Your task to perform on an android device: Go to Android settings Image 0: 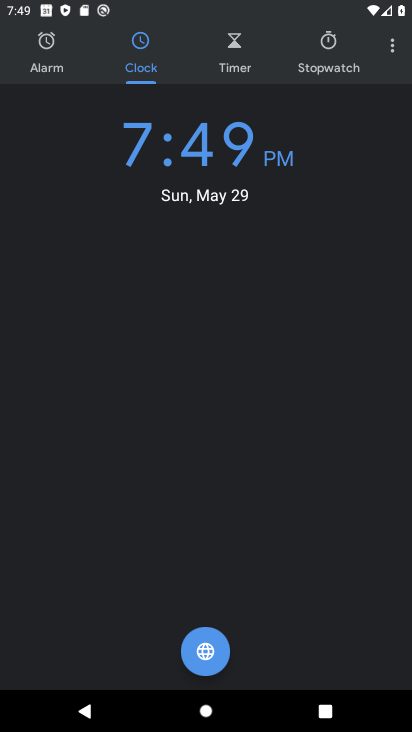
Step 0: press home button
Your task to perform on an android device: Go to Android settings Image 1: 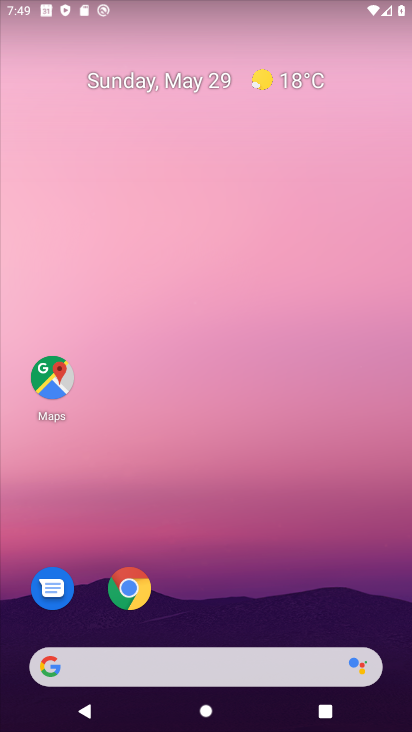
Step 1: drag from (252, 457) to (282, 67)
Your task to perform on an android device: Go to Android settings Image 2: 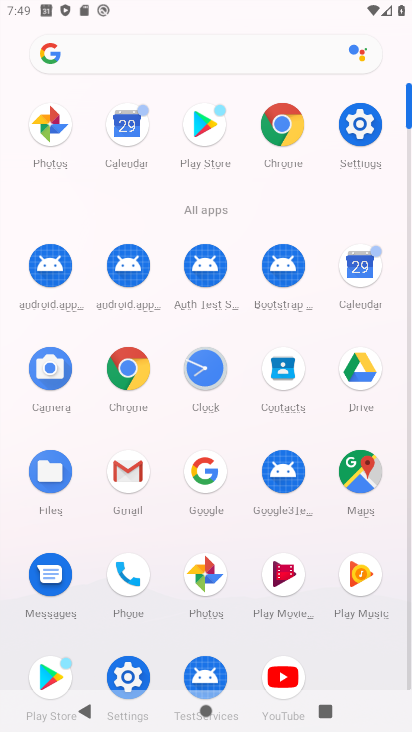
Step 2: click (362, 110)
Your task to perform on an android device: Go to Android settings Image 3: 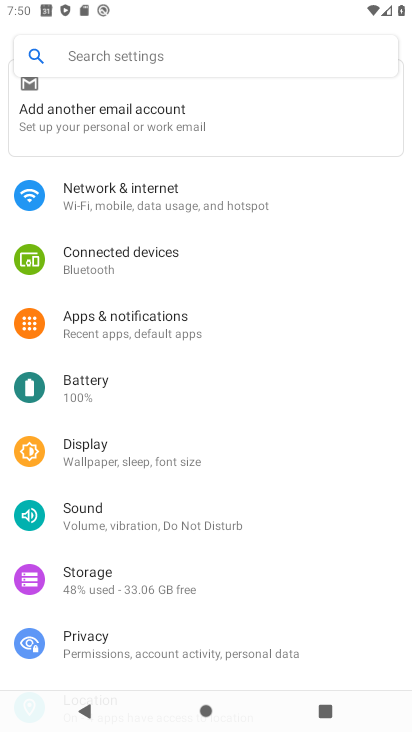
Step 3: task complete